Your task to perform on an android device: What is the news today? Image 0: 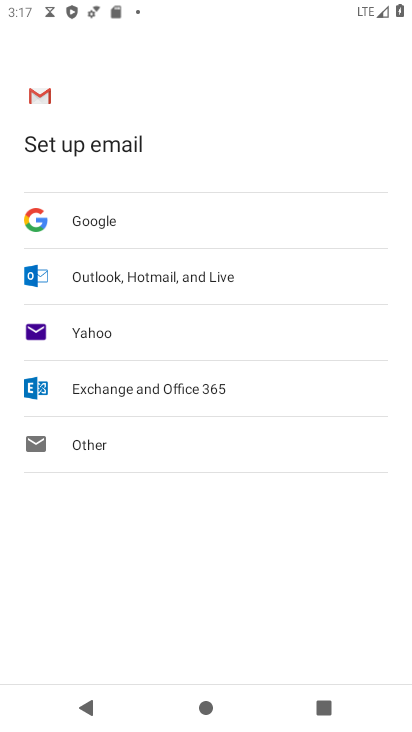
Step 0: press back button
Your task to perform on an android device: What is the news today? Image 1: 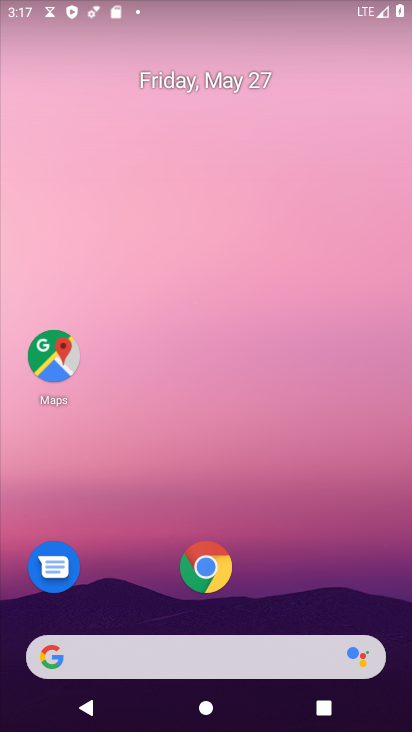
Step 1: click (164, 657)
Your task to perform on an android device: What is the news today? Image 2: 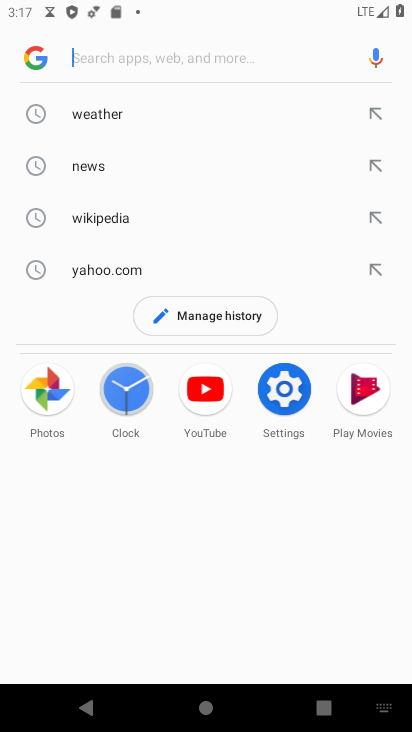
Step 2: click (76, 159)
Your task to perform on an android device: What is the news today? Image 3: 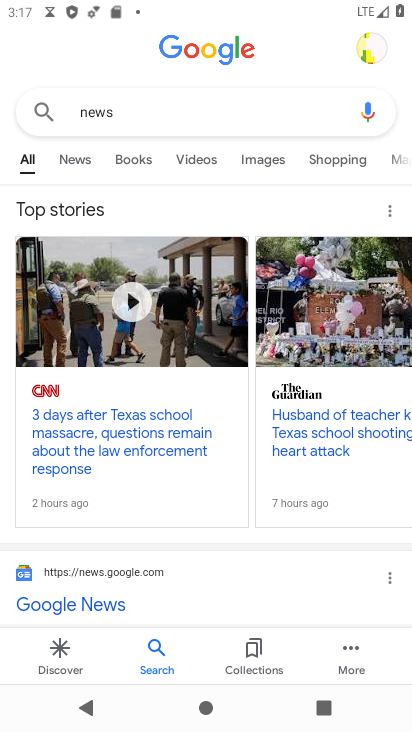
Step 3: task complete